Your task to perform on an android device: Go to internet settings Image 0: 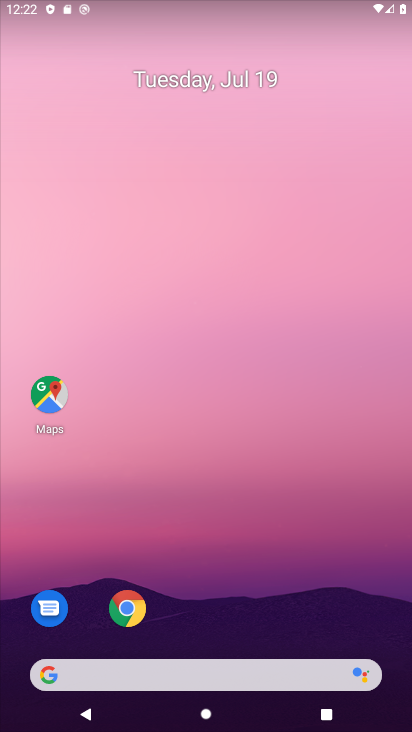
Step 0: drag from (224, 529) to (215, 229)
Your task to perform on an android device: Go to internet settings Image 1: 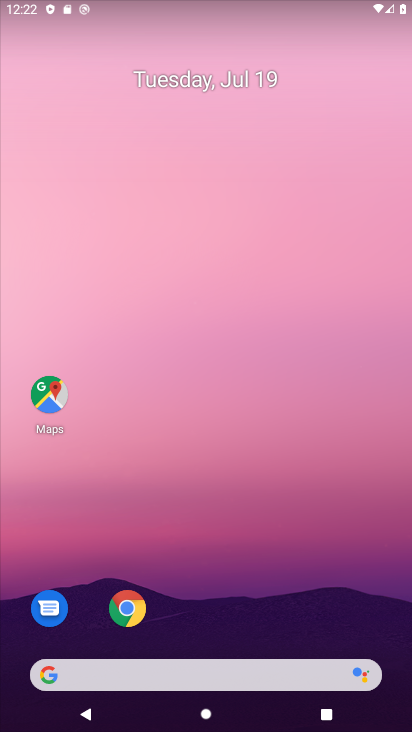
Step 1: drag from (225, 471) to (211, 133)
Your task to perform on an android device: Go to internet settings Image 2: 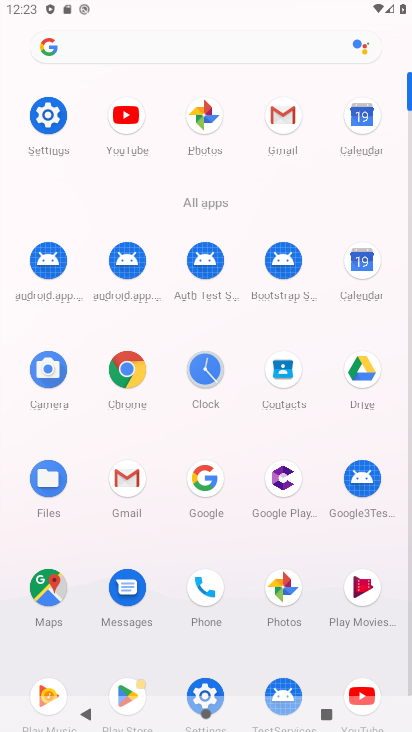
Step 2: click (202, 686)
Your task to perform on an android device: Go to internet settings Image 3: 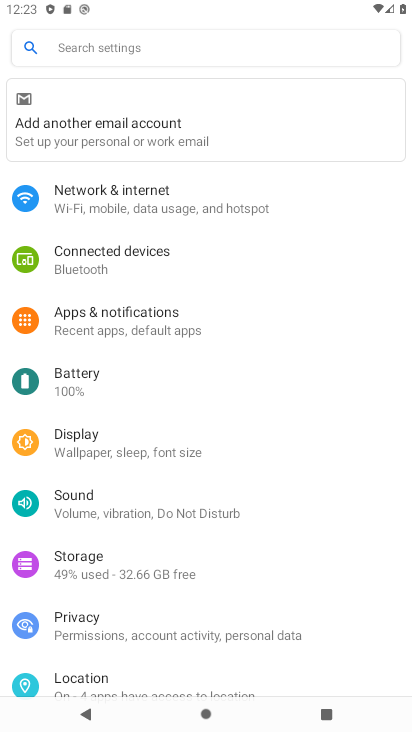
Step 3: click (115, 198)
Your task to perform on an android device: Go to internet settings Image 4: 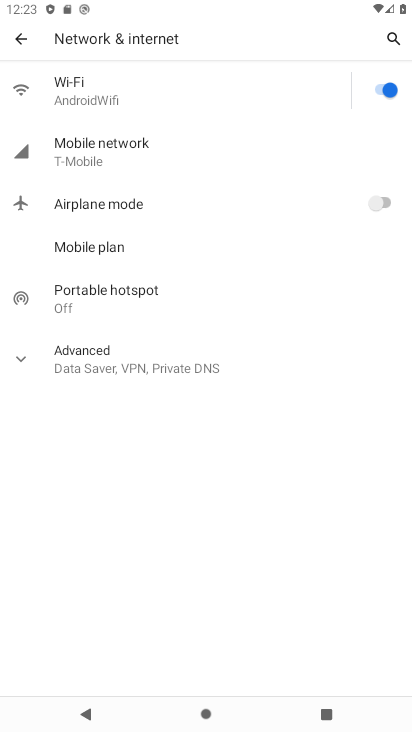
Step 4: task complete